Your task to perform on an android device: choose inbox layout in the gmail app Image 0: 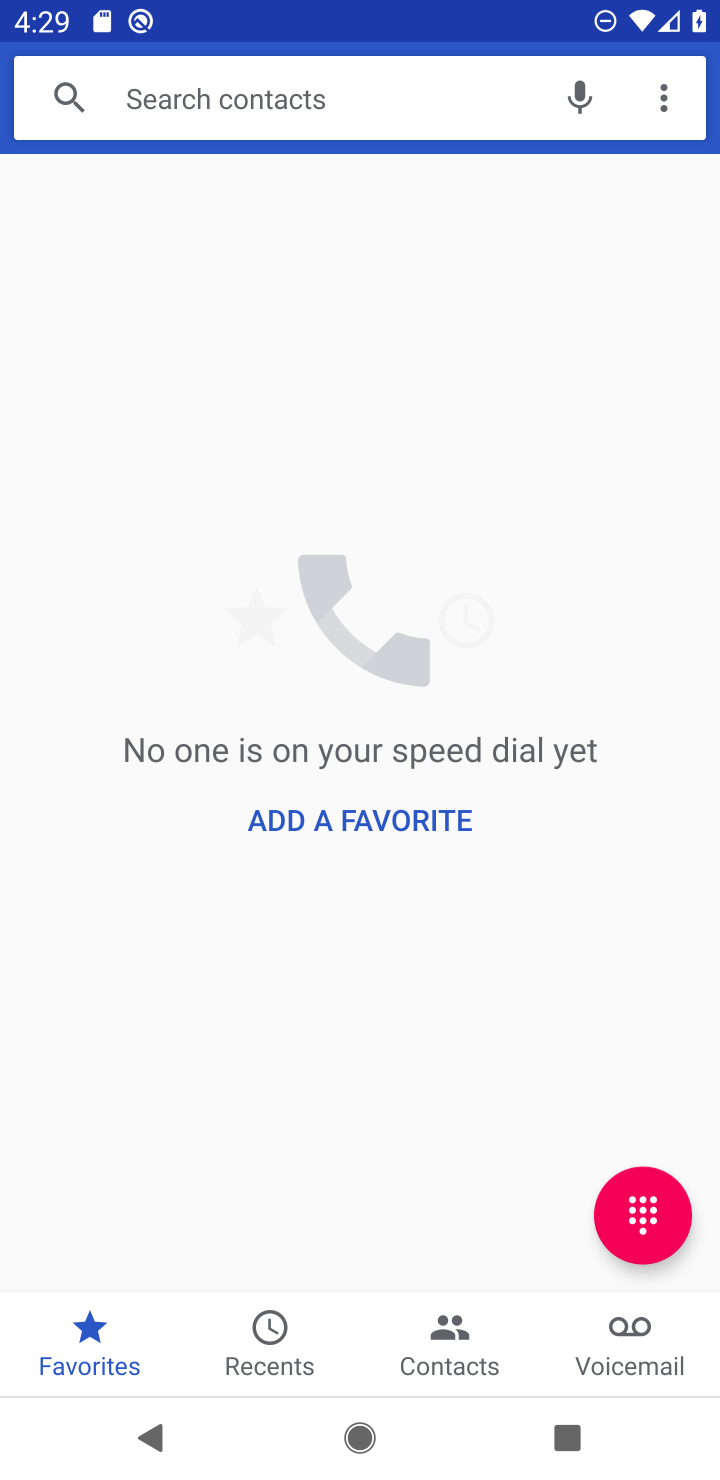
Step 0: press home button
Your task to perform on an android device: choose inbox layout in the gmail app Image 1: 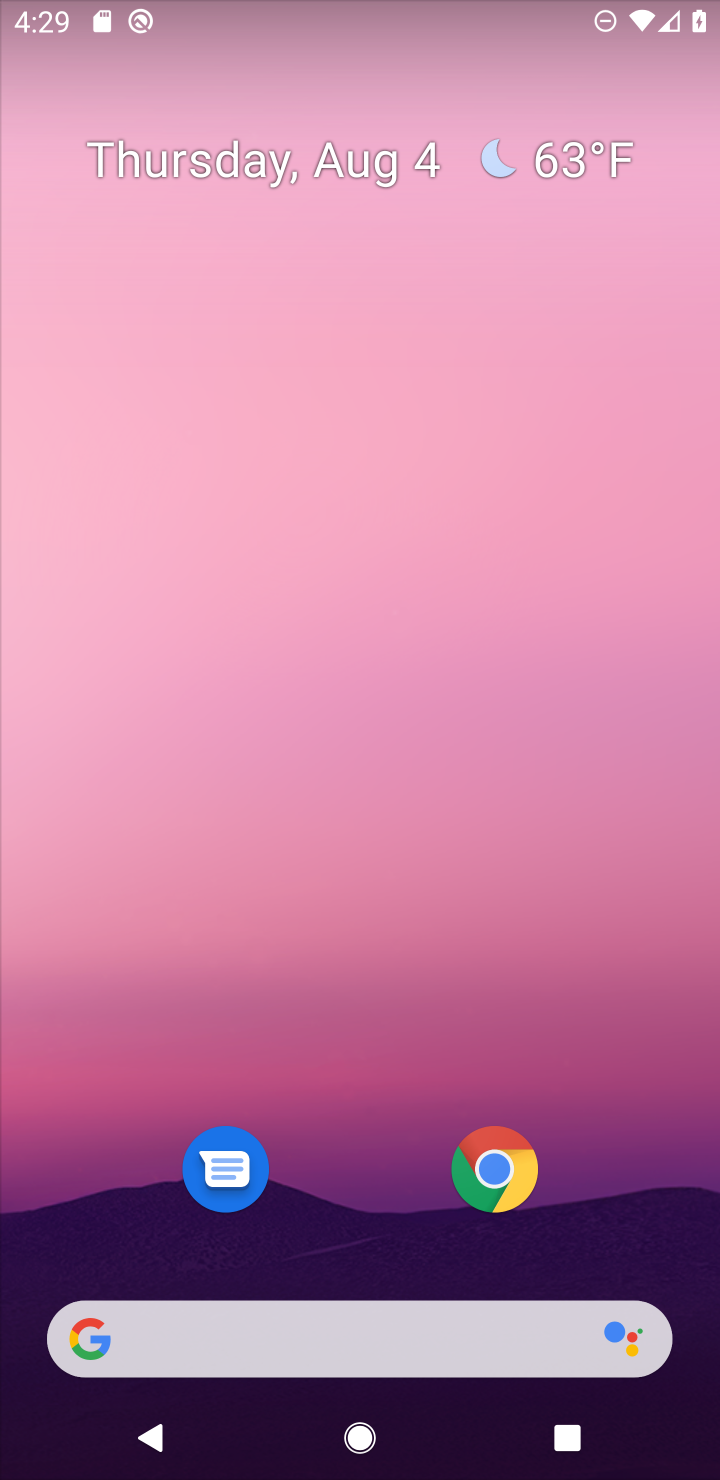
Step 1: drag from (374, 966) to (379, 3)
Your task to perform on an android device: choose inbox layout in the gmail app Image 2: 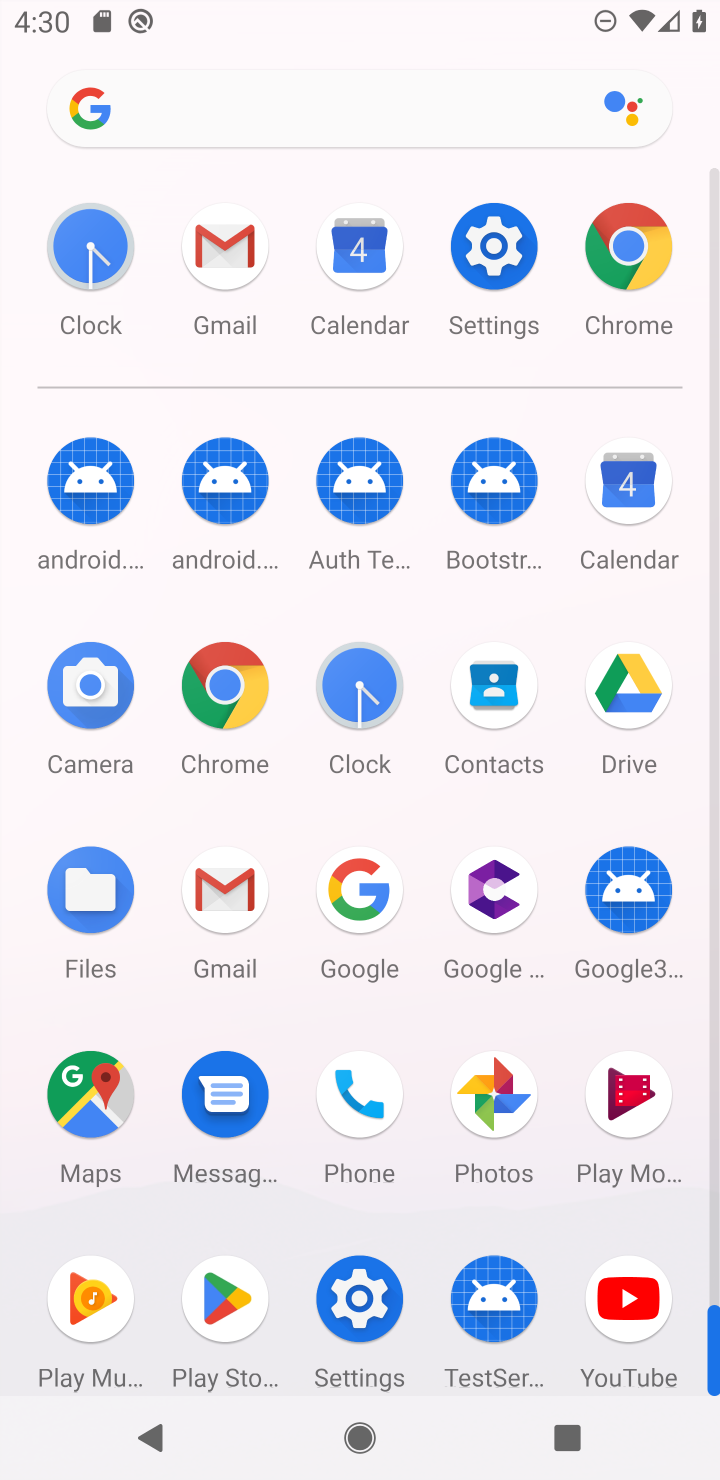
Step 2: click (196, 916)
Your task to perform on an android device: choose inbox layout in the gmail app Image 3: 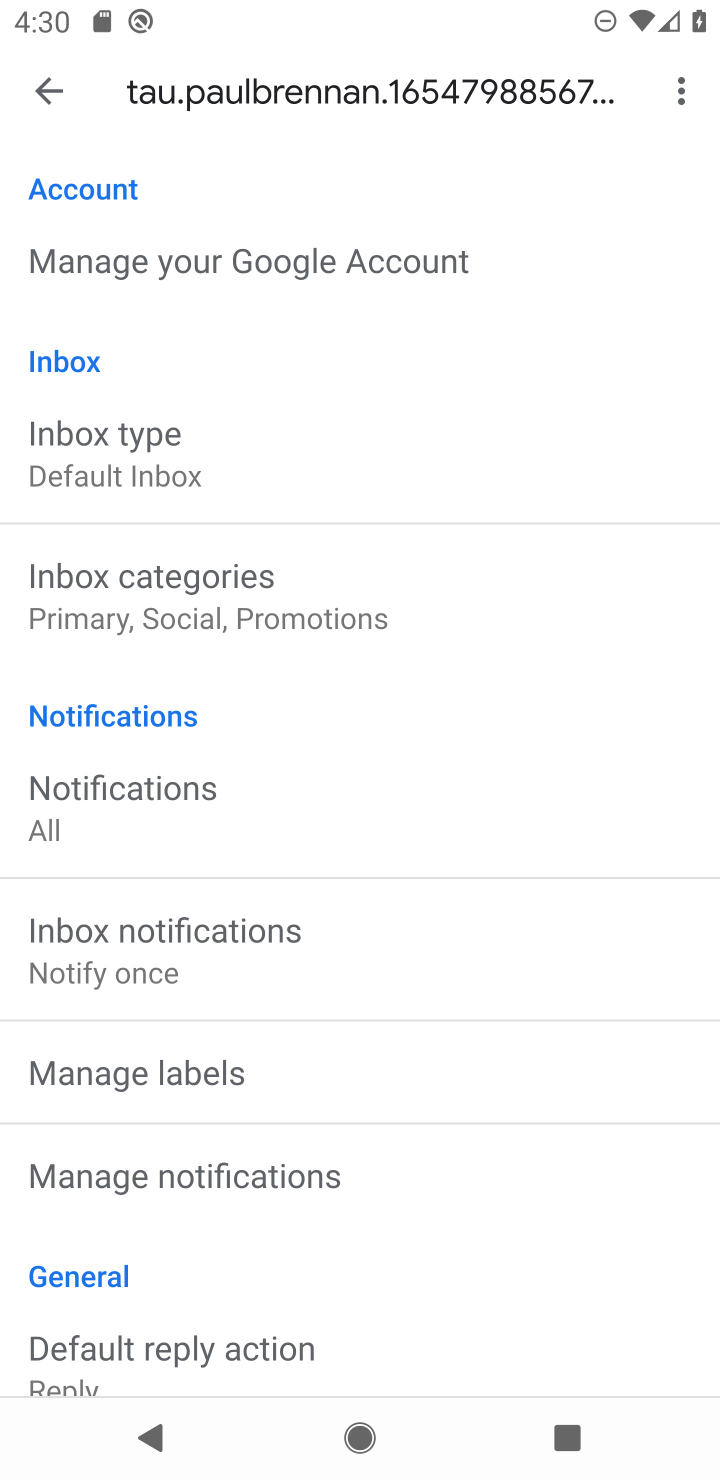
Step 3: click (205, 466)
Your task to perform on an android device: choose inbox layout in the gmail app Image 4: 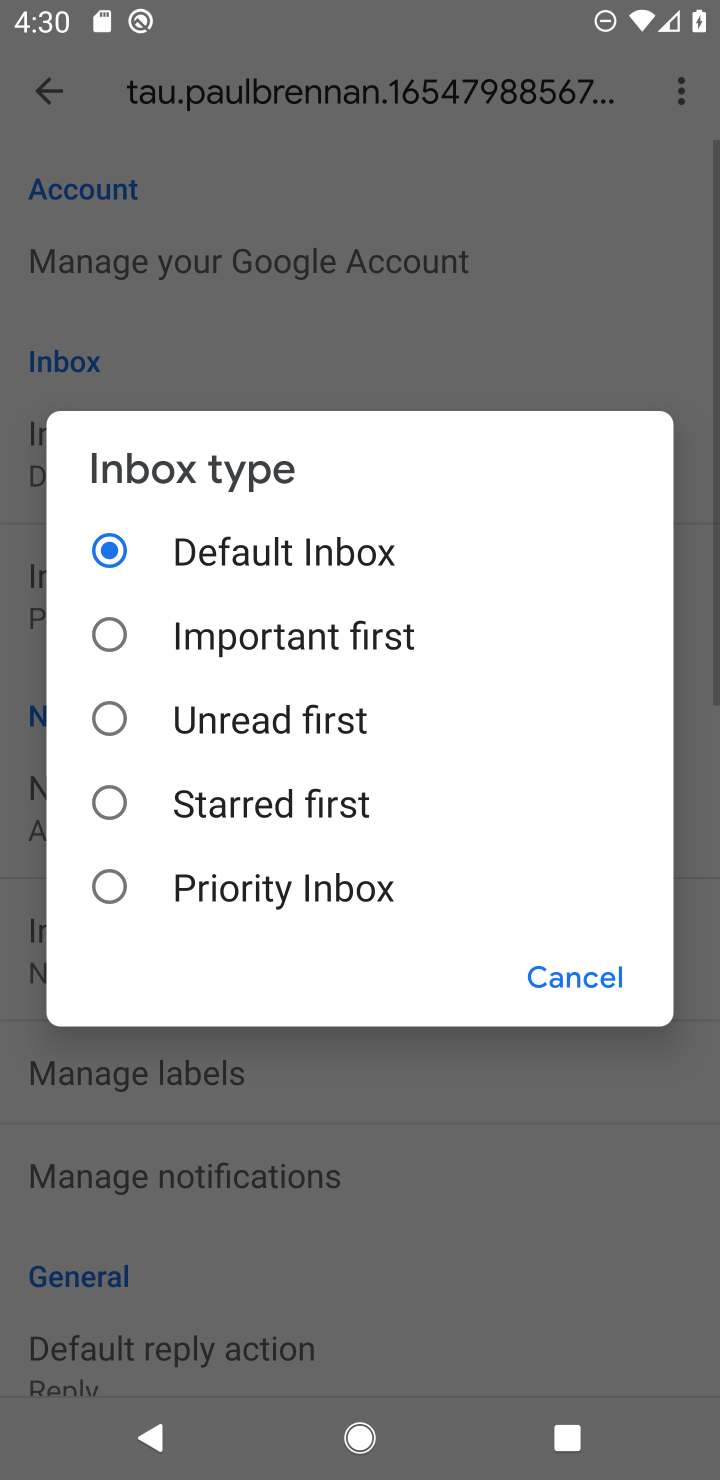
Step 4: click (193, 895)
Your task to perform on an android device: choose inbox layout in the gmail app Image 5: 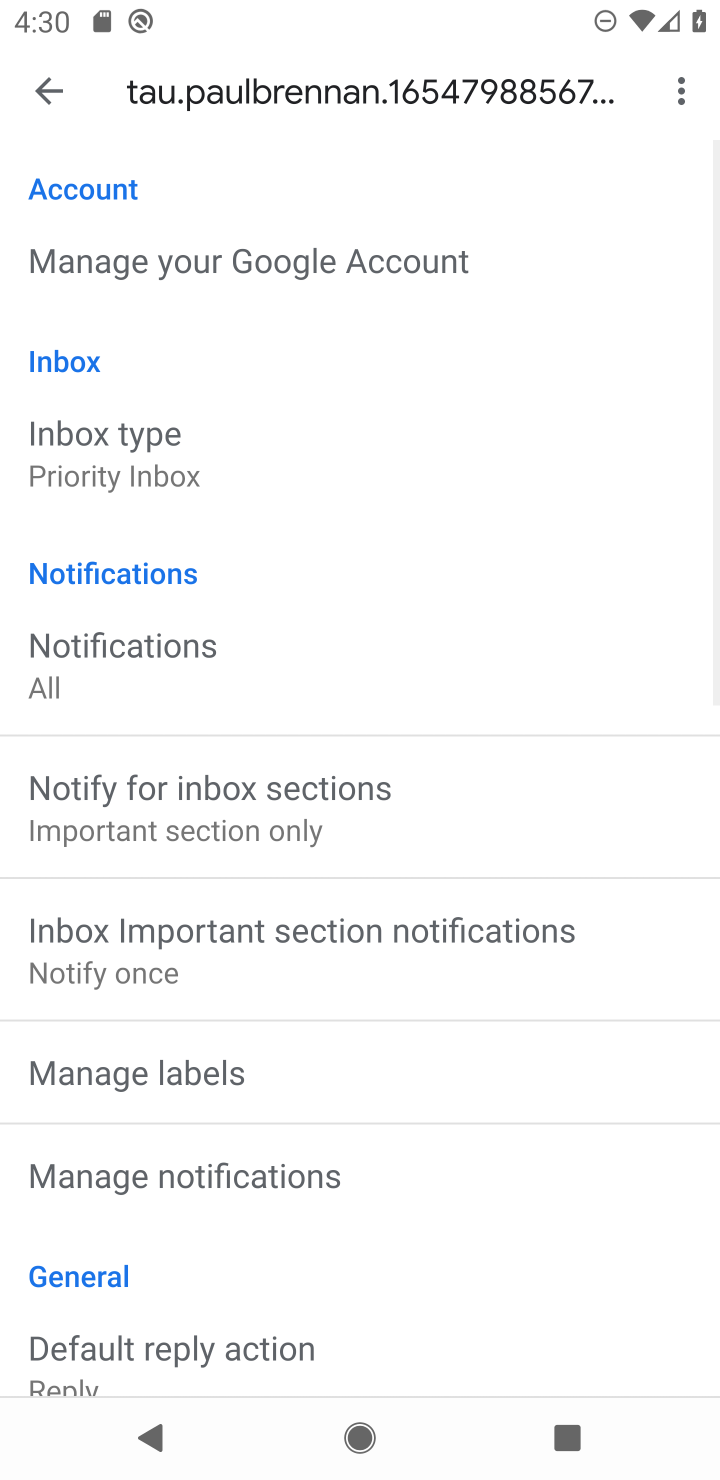
Step 5: task complete